Your task to perform on an android device: Open the Play Movies app and select the watchlist tab. Image 0: 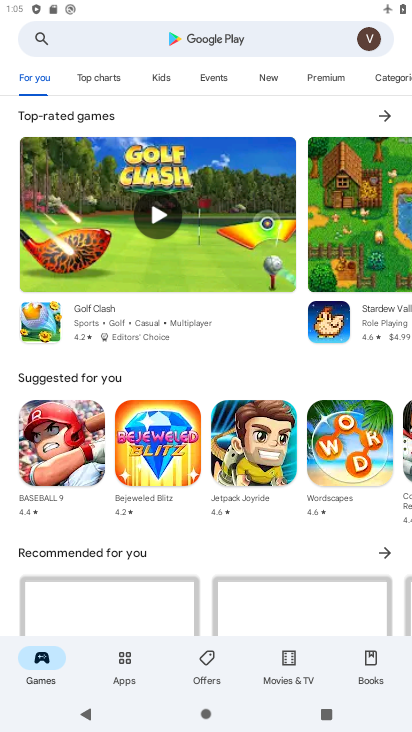
Step 0: press home button
Your task to perform on an android device: Open the Play Movies app and select the watchlist tab. Image 1: 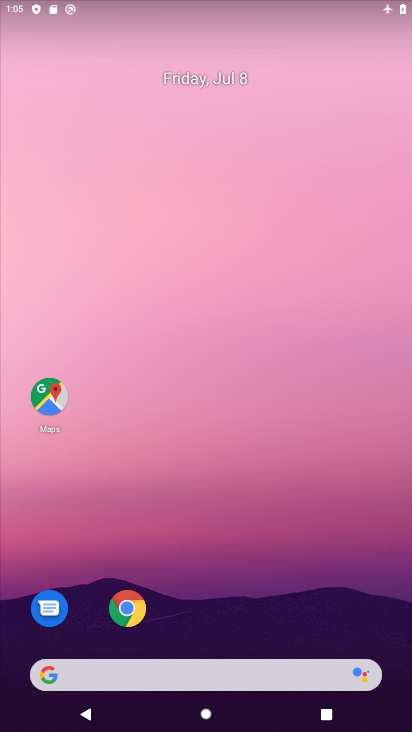
Step 1: drag from (358, 610) to (333, 167)
Your task to perform on an android device: Open the Play Movies app and select the watchlist tab. Image 2: 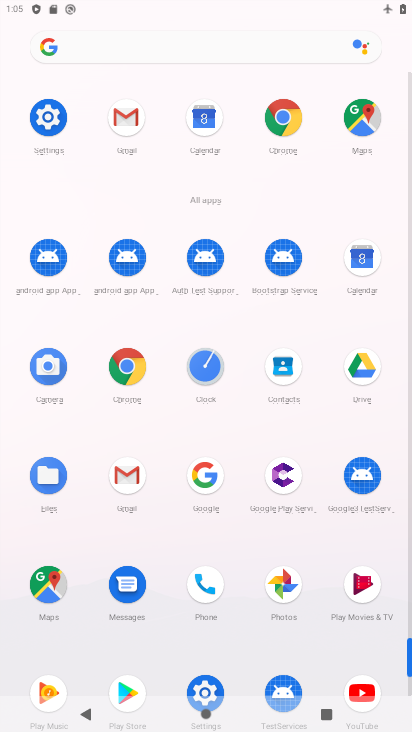
Step 2: click (362, 585)
Your task to perform on an android device: Open the Play Movies app and select the watchlist tab. Image 3: 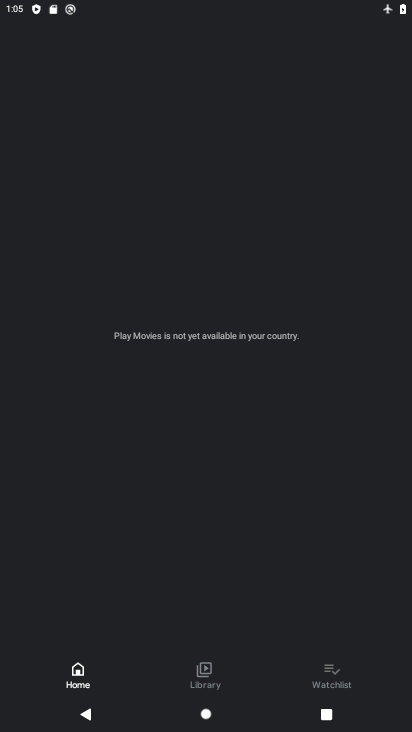
Step 3: click (329, 669)
Your task to perform on an android device: Open the Play Movies app and select the watchlist tab. Image 4: 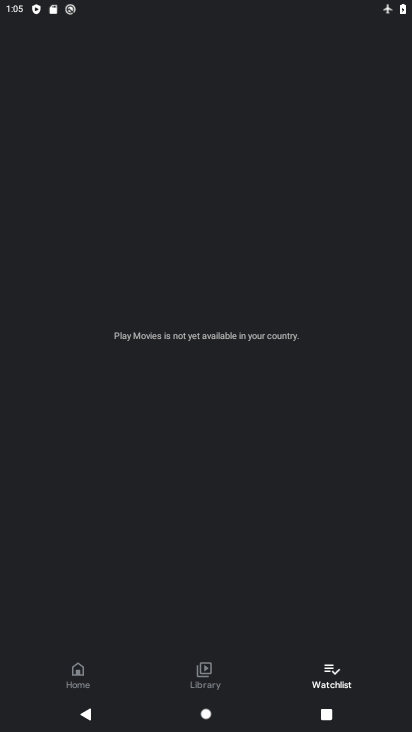
Step 4: task complete